Your task to perform on an android device: What is the recent news? Image 0: 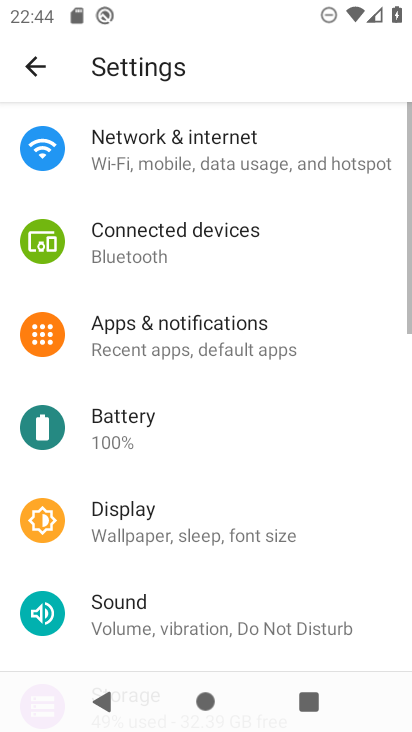
Step 0: press home button
Your task to perform on an android device: What is the recent news? Image 1: 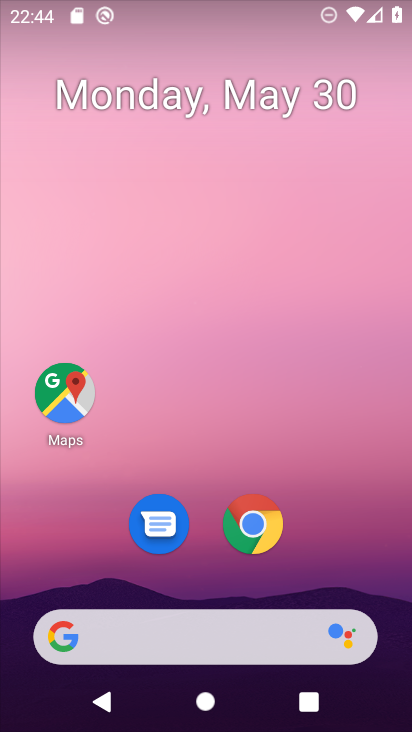
Step 1: click (219, 647)
Your task to perform on an android device: What is the recent news? Image 2: 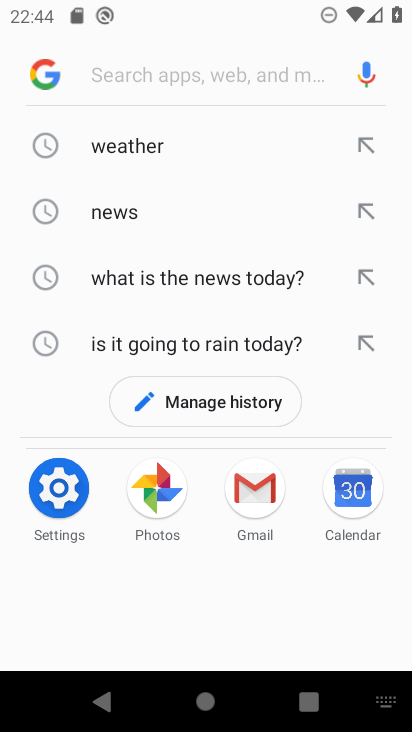
Step 2: click (112, 212)
Your task to perform on an android device: What is the recent news? Image 3: 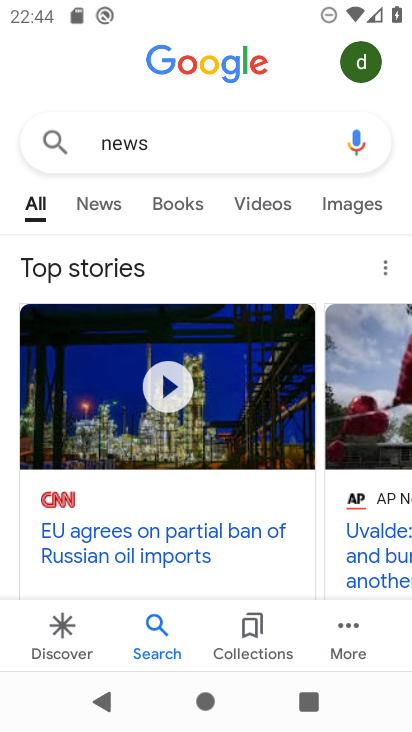
Step 3: click (109, 207)
Your task to perform on an android device: What is the recent news? Image 4: 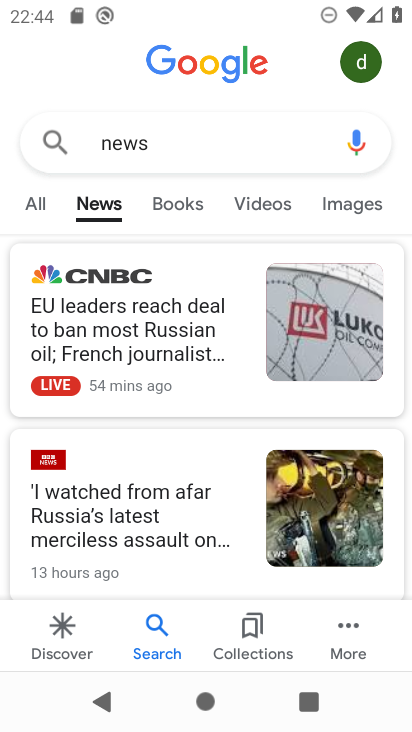
Step 4: drag from (214, 499) to (215, 279)
Your task to perform on an android device: What is the recent news? Image 5: 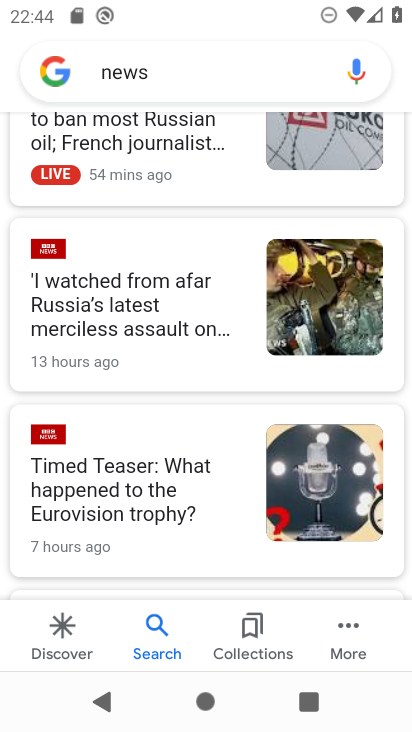
Step 5: click (183, 309)
Your task to perform on an android device: What is the recent news? Image 6: 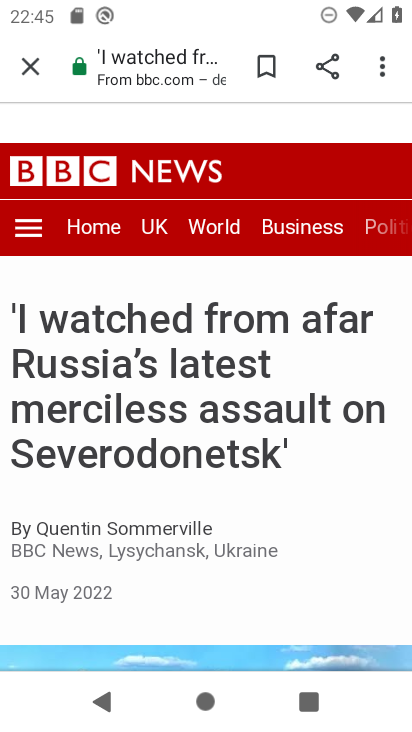
Step 6: task complete